Your task to perform on an android device: open app "Yahoo Mail" (install if not already installed) Image 0: 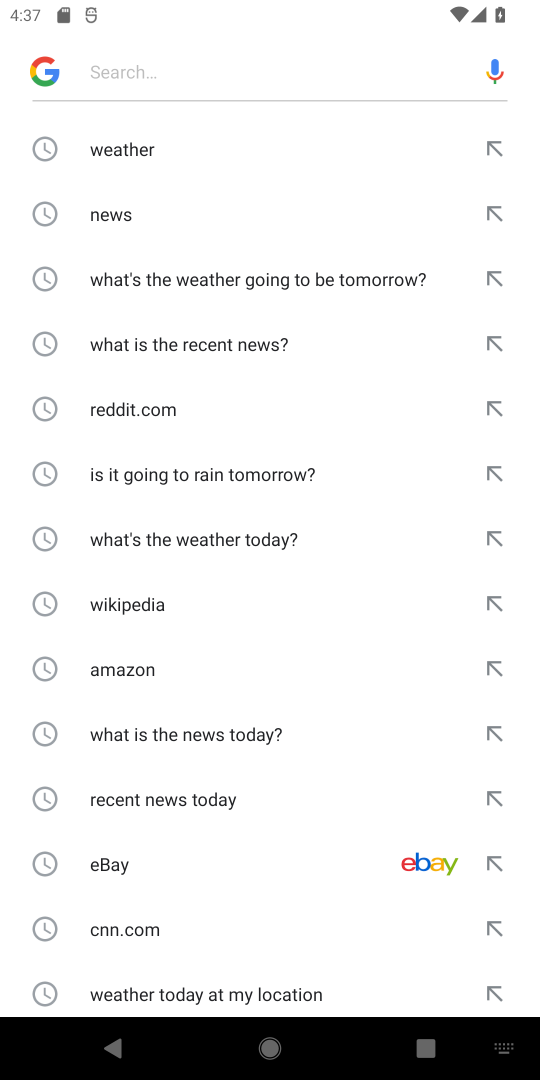
Step 0: press back button
Your task to perform on an android device: open app "Yahoo Mail" (install if not already installed) Image 1: 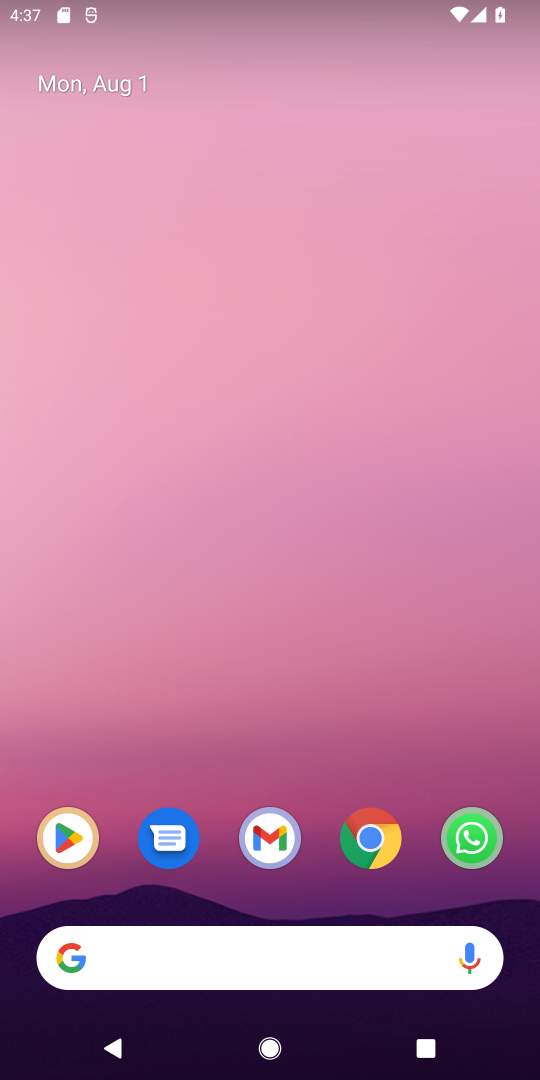
Step 1: click (81, 832)
Your task to perform on an android device: open app "Yahoo Mail" (install if not already installed) Image 2: 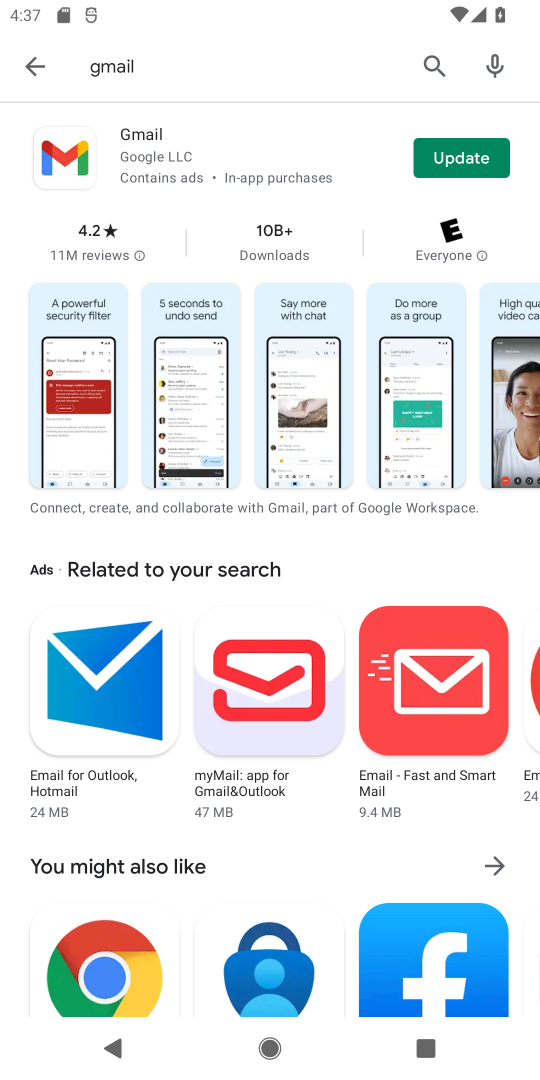
Step 2: click (433, 73)
Your task to perform on an android device: open app "Yahoo Mail" (install if not already installed) Image 3: 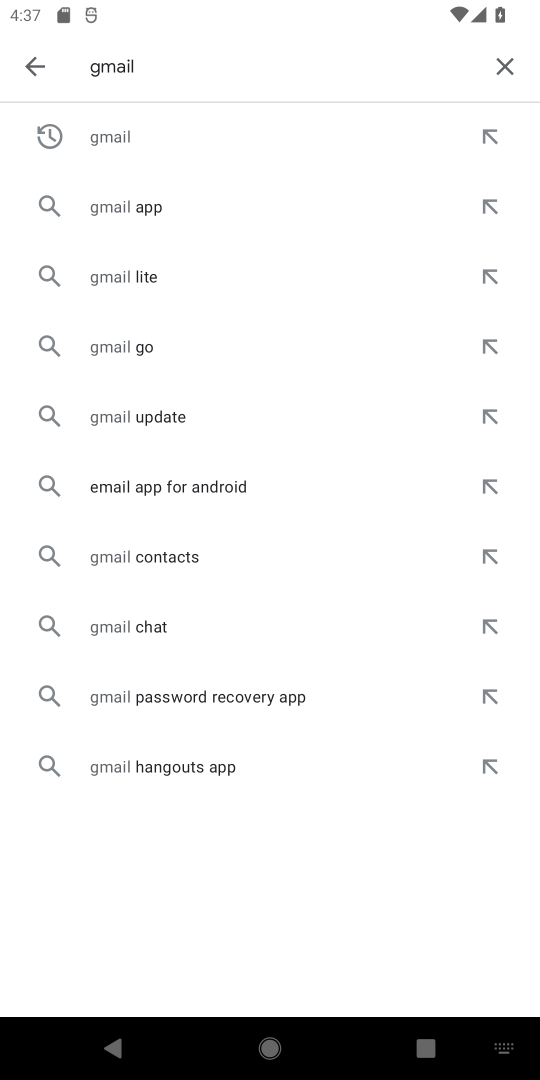
Step 3: click (512, 73)
Your task to perform on an android device: open app "Yahoo Mail" (install if not already installed) Image 4: 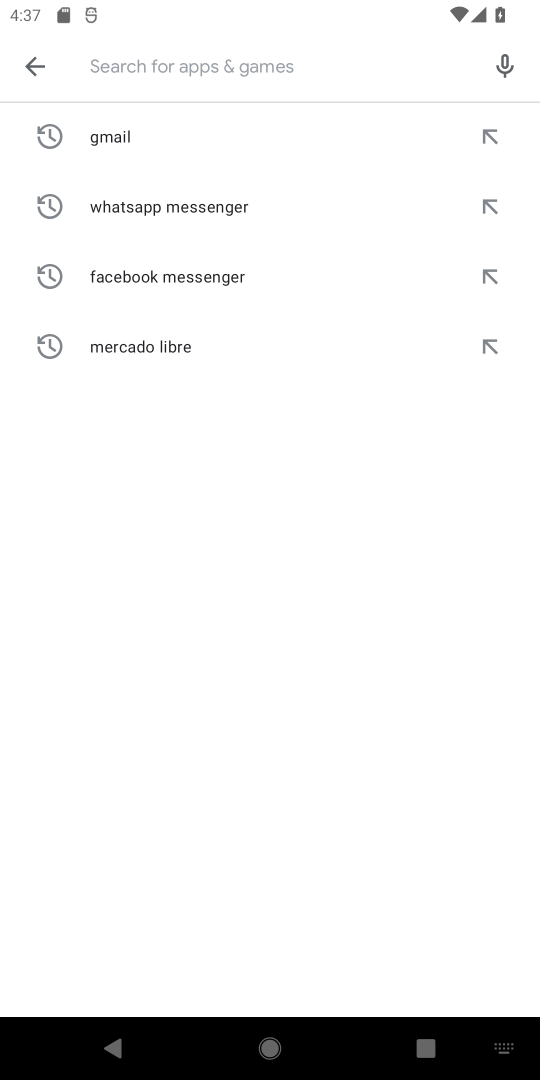
Step 4: type "Yahoo Mail"
Your task to perform on an android device: open app "Yahoo Mail" (install if not already installed) Image 5: 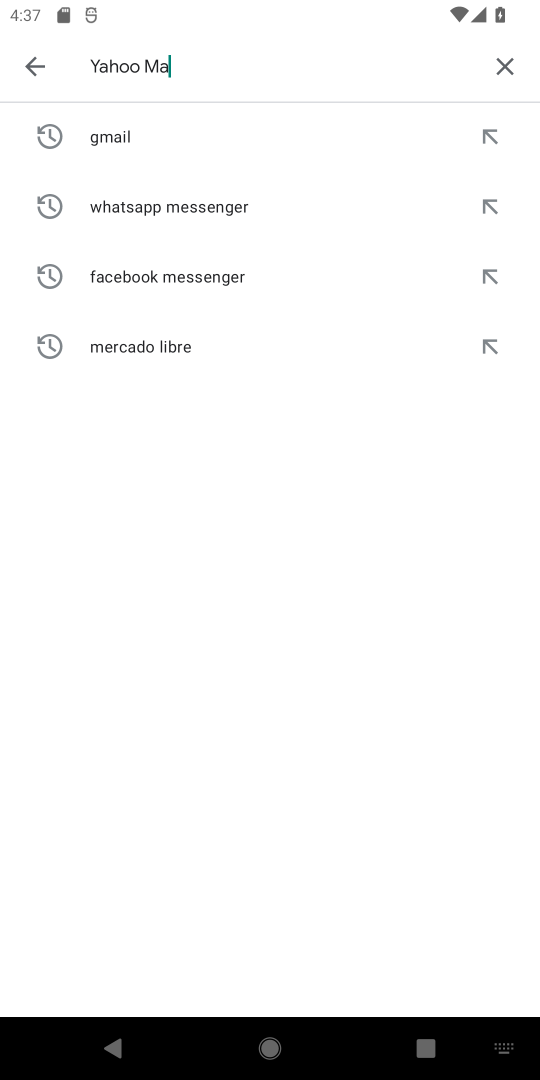
Step 5: type ""
Your task to perform on an android device: open app "Yahoo Mail" (install if not already installed) Image 6: 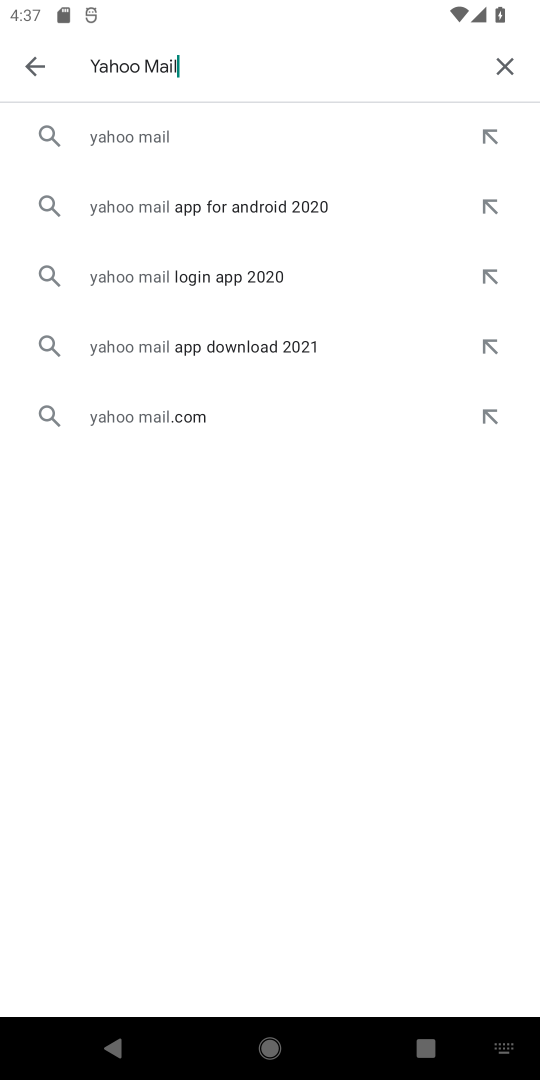
Step 6: click (196, 125)
Your task to perform on an android device: open app "Yahoo Mail" (install if not already installed) Image 7: 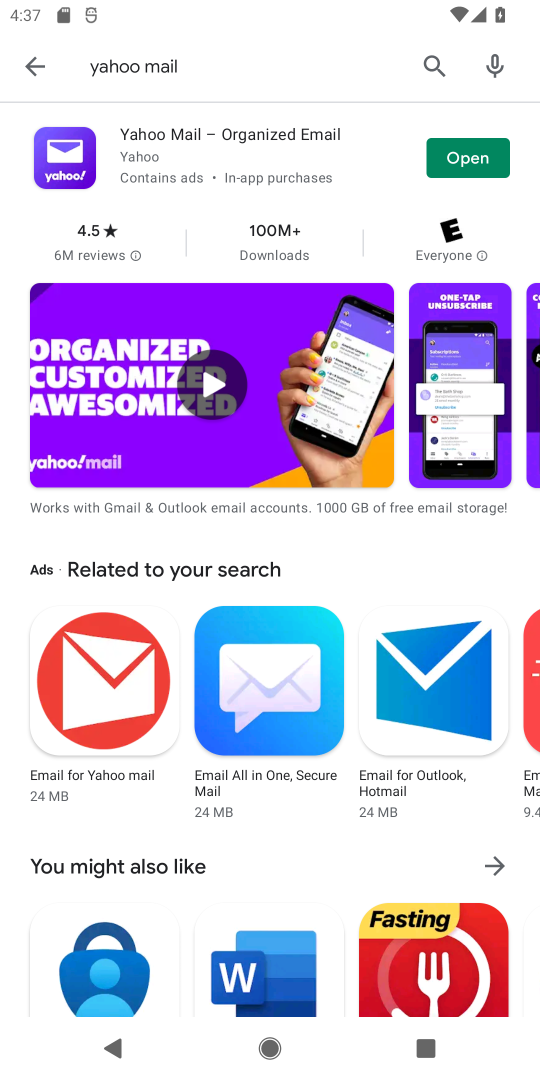
Step 7: click (480, 158)
Your task to perform on an android device: open app "Yahoo Mail" (install if not already installed) Image 8: 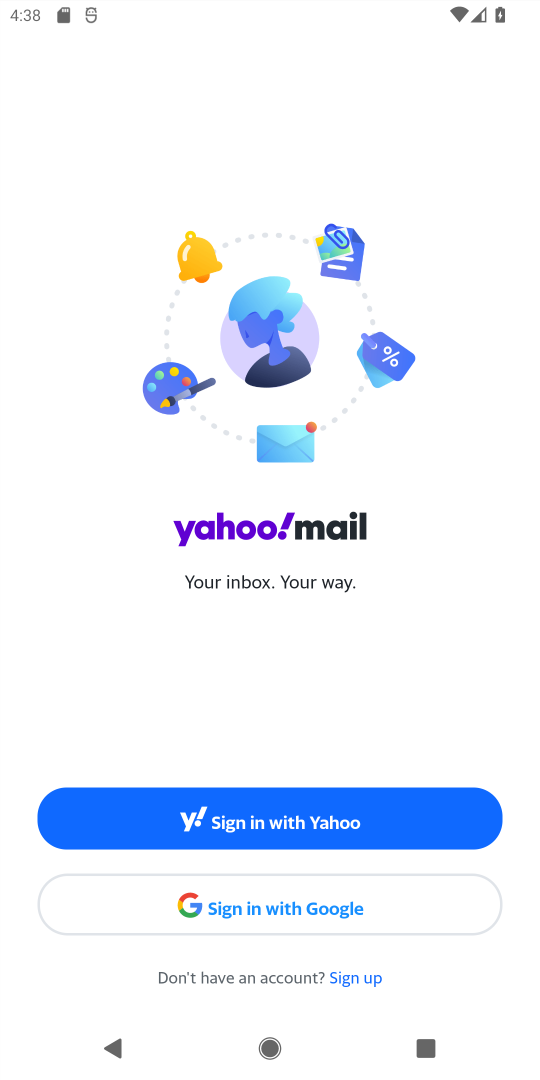
Step 8: task complete